Your task to perform on an android device: Open Youtube and go to the subscriptions tab Image 0: 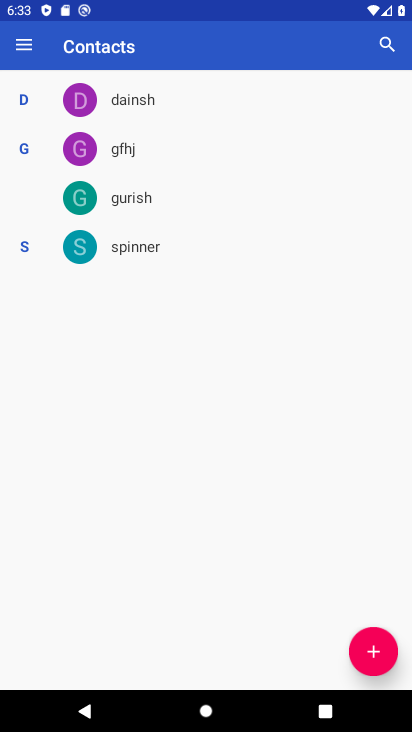
Step 0: press home button
Your task to perform on an android device: Open Youtube and go to the subscriptions tab Image 1: 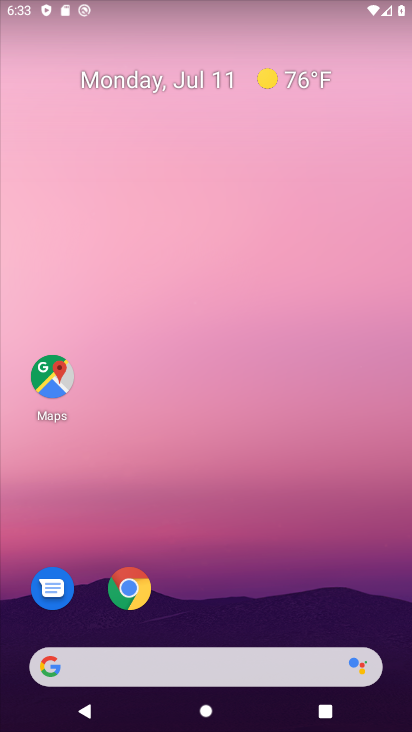
Step 1: drag from (198, 588) to (163, 119)
Your task to perform on an android device: Open Youtube and go to the subscriptions tab Image 2: 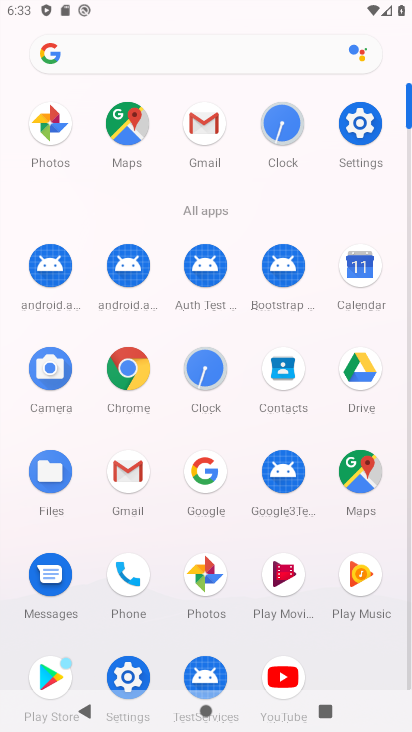
Step 2: click (277, 680)
Your task to perform on an android device: Open Youtube and go to the subscriptions tab Image 3: 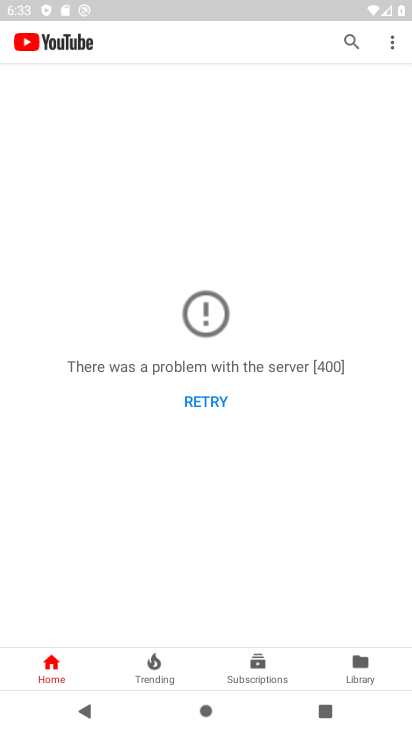
Step 3: click (208, 398)
Your task to perform on an android device: Open Youtube and go to the subscriptions tab Image 4: 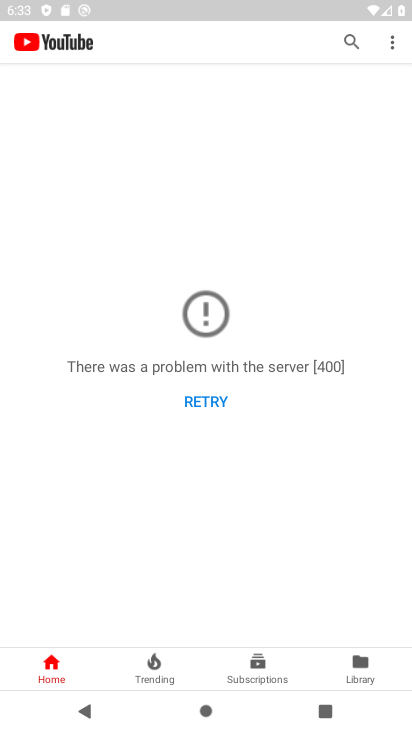
Step 4: click (257, 663)
Your task to perform on an android device: Open Youtube and go to the subscriptions tab Image 5: 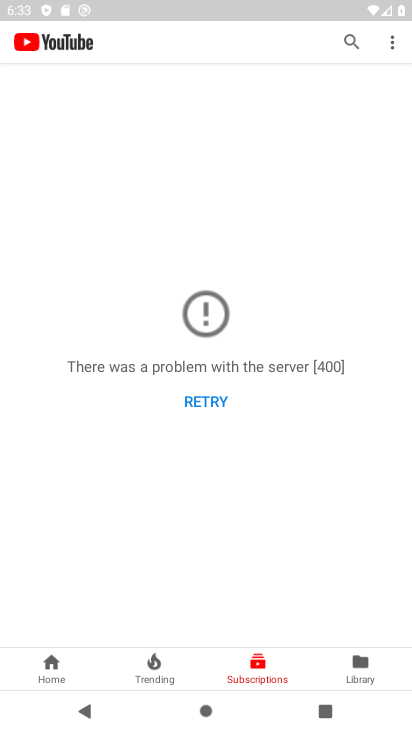
Step 5: task complete